Your task to perform on an android device: Open Yahoo.com Image 0: 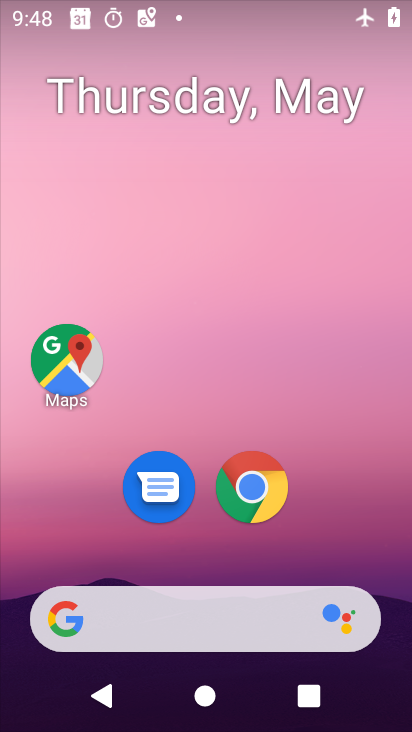
Step 0: drag from (249, 609) to (330, 63)
Your task to perform on an android device: Open Yahoo.com Image 1: 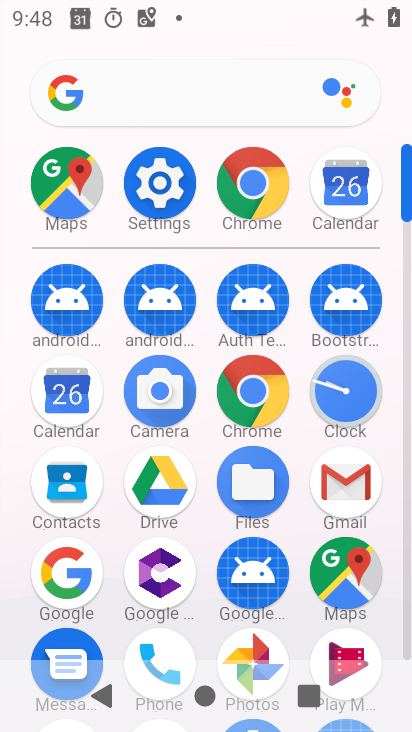
Step 1: click (263, 238)
Your task to perform on an android device: Open Yahoo.com Image 2: 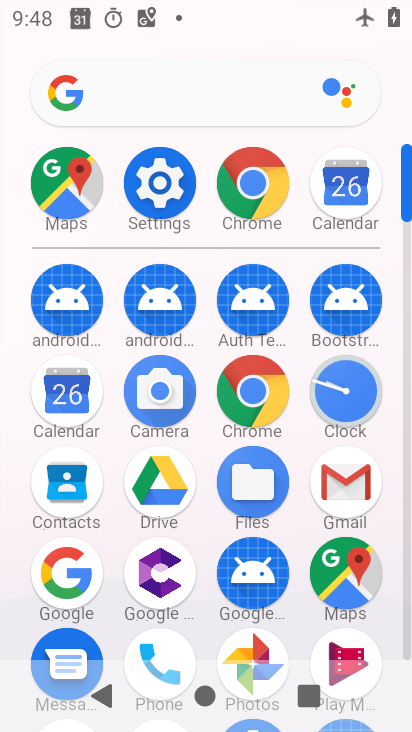
Step 2: click (262, 188)
Your task to perform on an android device: Open Yahoo.com Image 3: 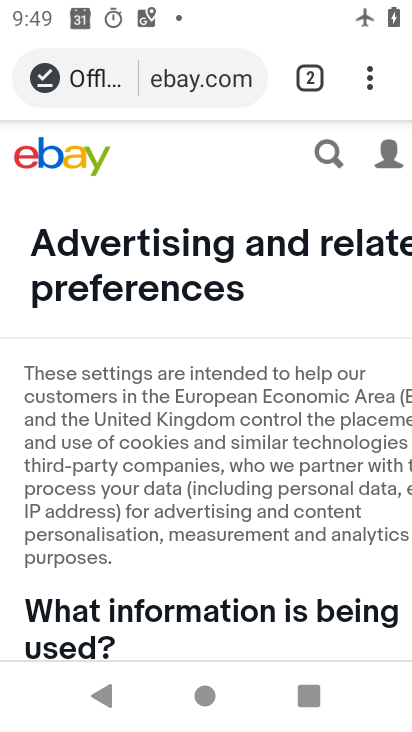
Step 3: click (227, 93)
Your task to perform on an android device: Open Yahoo.com Image 4: 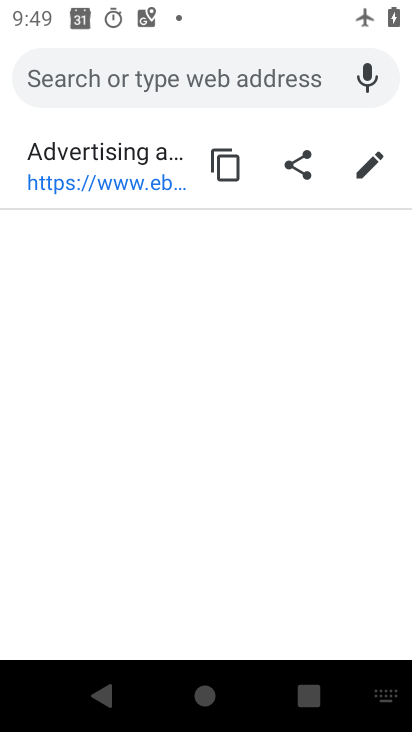
Step 4: type "yahoo"
Your task to perform on an android device: Open Yahoo.com Image 5: 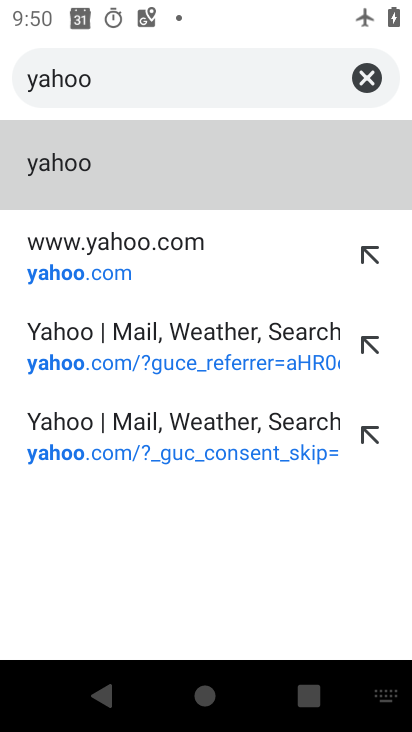
Step 5: click (255, 248)
Your task to perform on an android device: Open Yahoo.com Image 6: 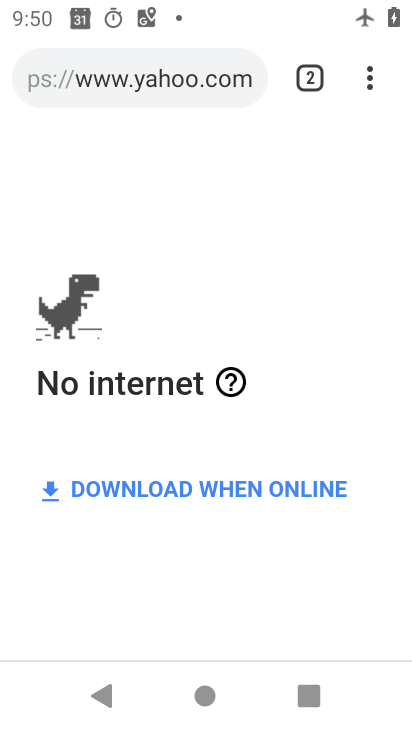
Step 6: task complete